Your task to perform on an android device: Search for seafood restaurants on Google Maps Image 0: 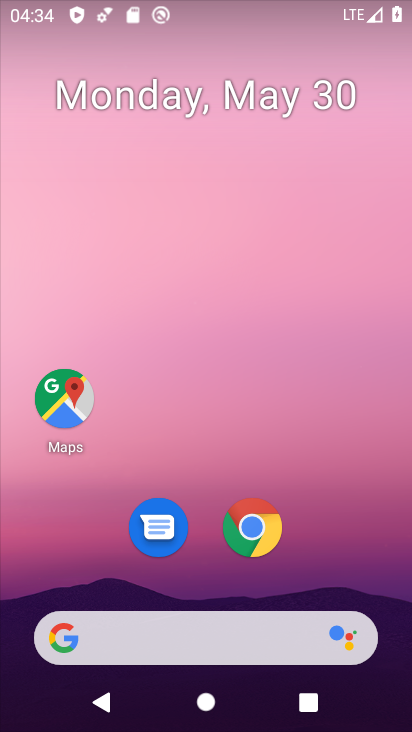
Step 0: drag from (200, 710) to (216, 5)
Your task to perform on an android device: Search for seafood restaurants on Google Maps Image 1: 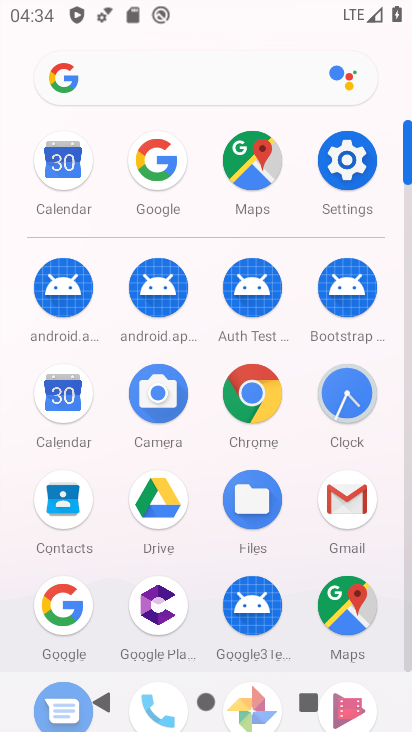
Step 1: click (350, 610)
Your task to perform on an android device: Search for seafood restaurants on Google Maps Image 2: 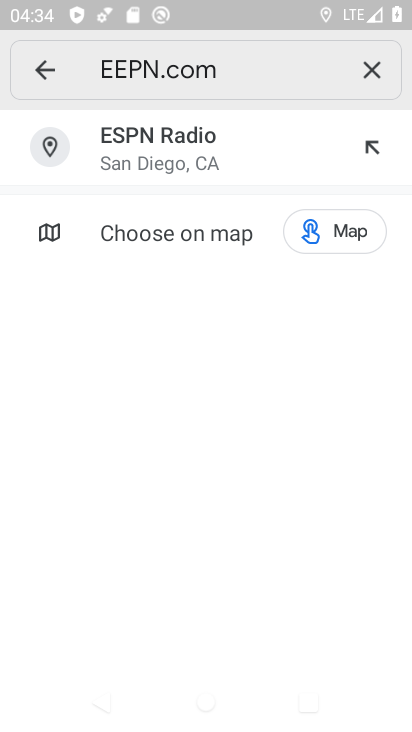
Step 2: click (374, 72)
Your task to perform on an android device: Search for seafood restaurants on Google Maps Image 3: 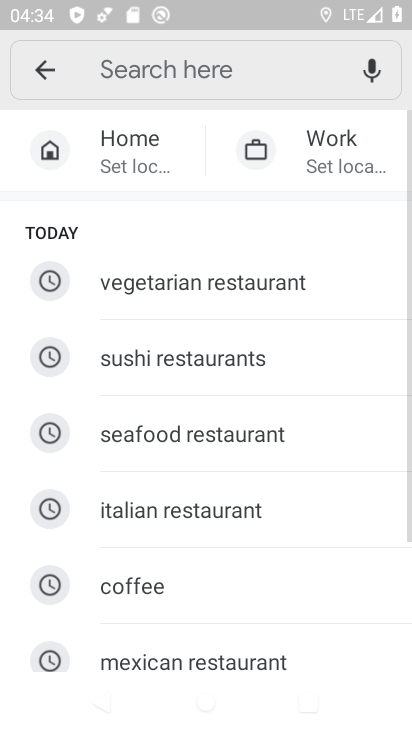
Step 3: click (172, 75)
Your task to perform on an android device: Search for seafood restaurants on Google Maps Image 4: 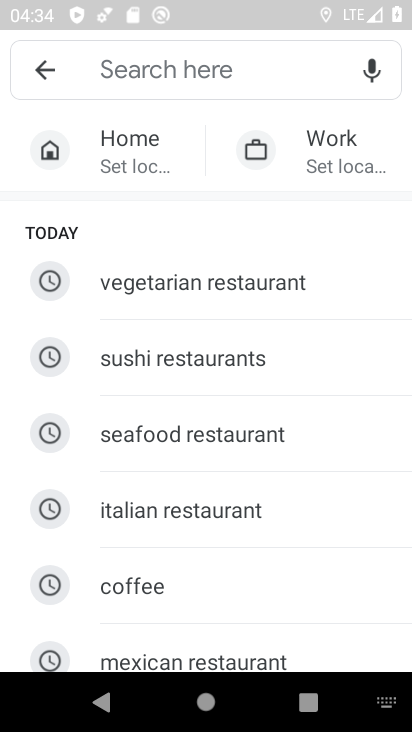
Step 4: type "seafood restaurants"
Your task to perform on an android device: Search for seafood restaurants on Google Maps Image 5: 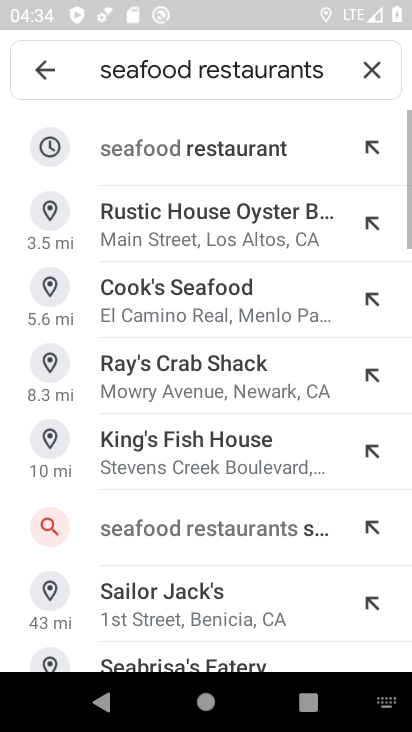
Step 5: click (204, 148)
Your task to perform on an android device: Search for seafood restaurants on Google Maps Image 6: 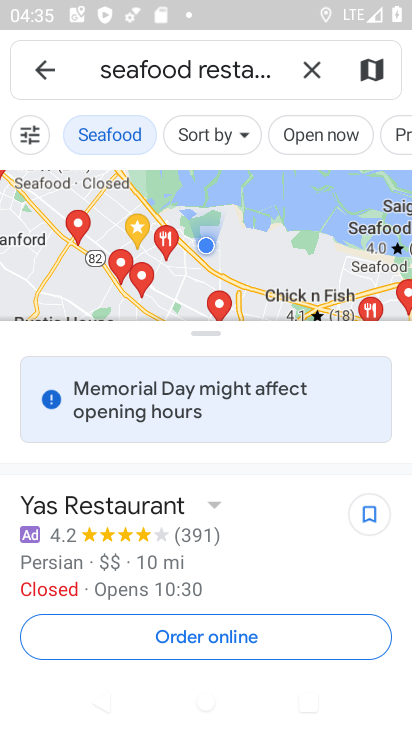
Step 6: task complete